Your task to perform on an android device: Go to settings Image 0: 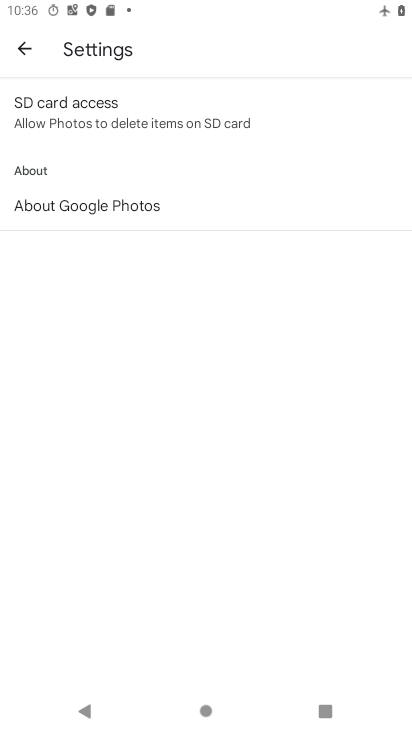
Step 0: press home button
Your task to perform on an android device: Go to settings Image 1: 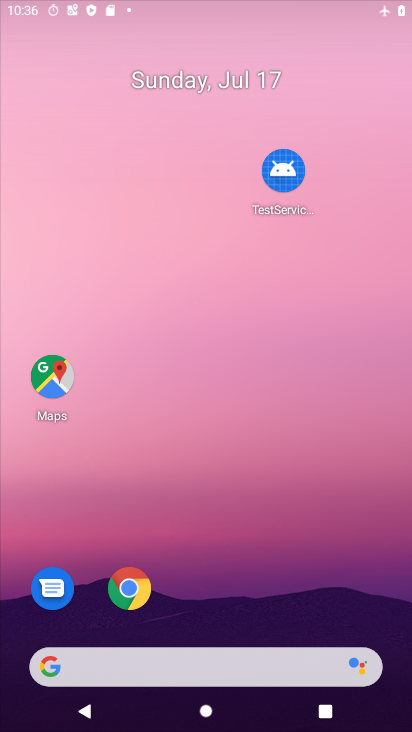
Step 1: drag from (246, 565) to (305, 52)
Your task to perform on an android device: Go to settings Image 2: 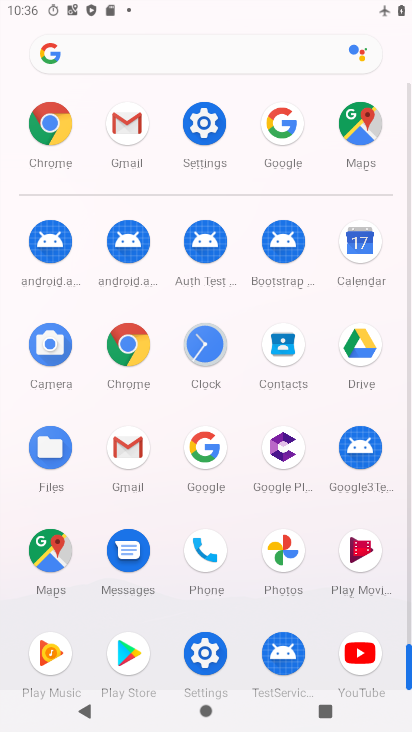
Step 2: click (211, 148)
Your task to perform on an android device: Go to settings Image 3: 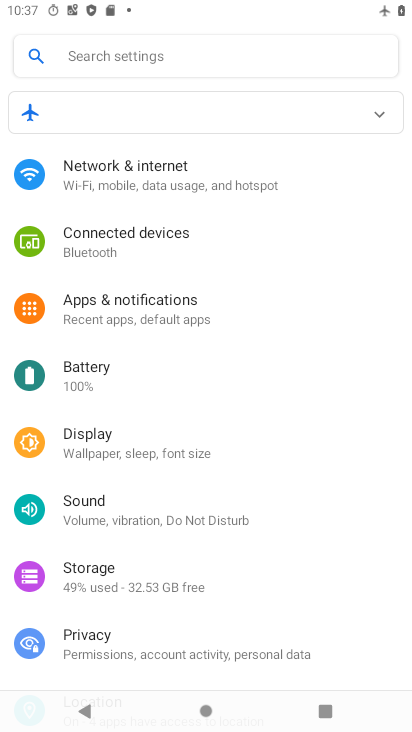
Step 3: task complete